Your task to perform on an android device: turn notification dots on Image 0: 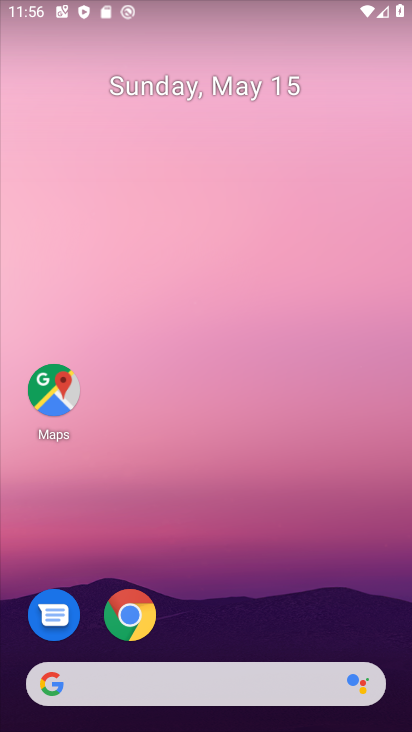
Step 0: drag from (348, 570) to (293, 159)
Your task to perform on an android device: turn notification dots on Image 1: 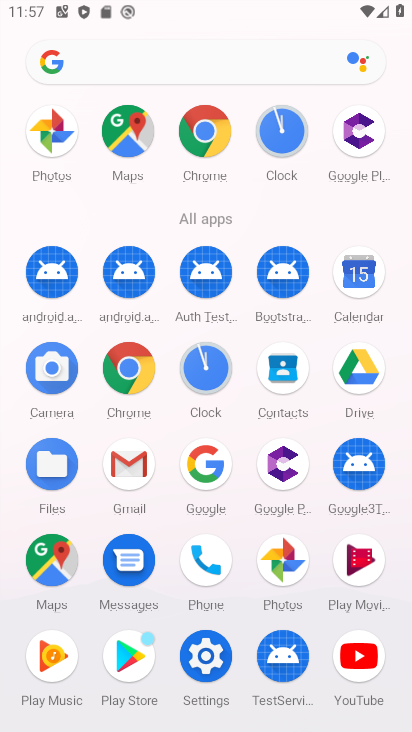
Step 1: click (214, 680)
Your task to perform on an android device: turn notification dots on Image 2: 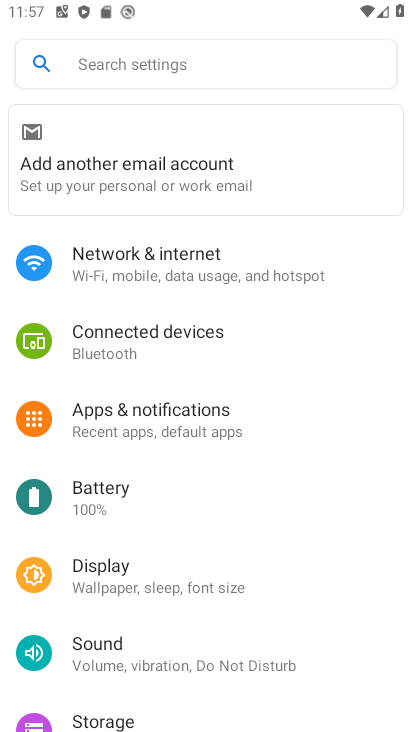
Step 2: click (177, 426)
Your task to perform on an android device: turn notification dots on Image 3: 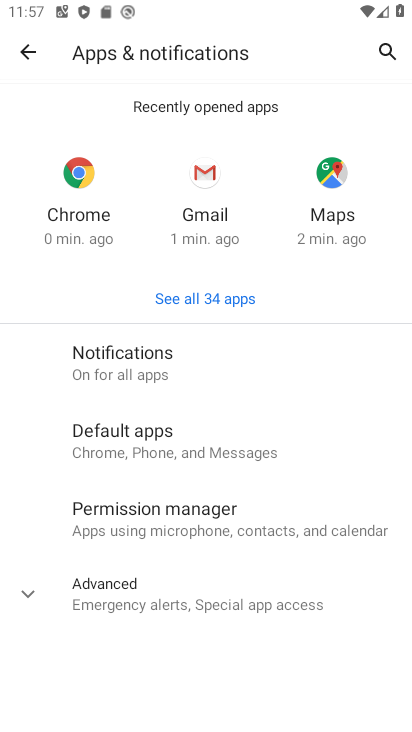
Step 3: click (161, 361)
Your task to perform on an android device: turn notification dots on Image 4: 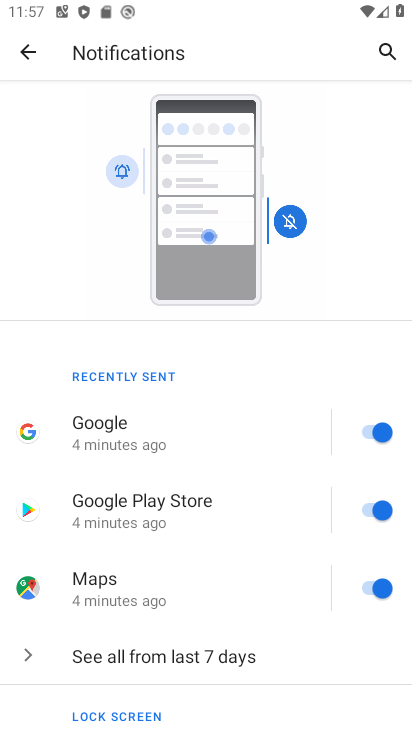
Step 4: drag from (288, 682) to (262, 239)
Your task to perform on an android device: turn notification dots on Image 5: 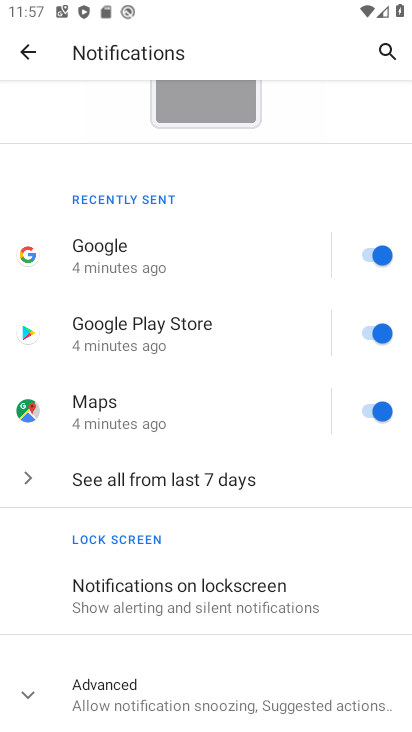
Step 5: click (227, 681)
Your task to perform on an android device: turn notification dots on Image 6: 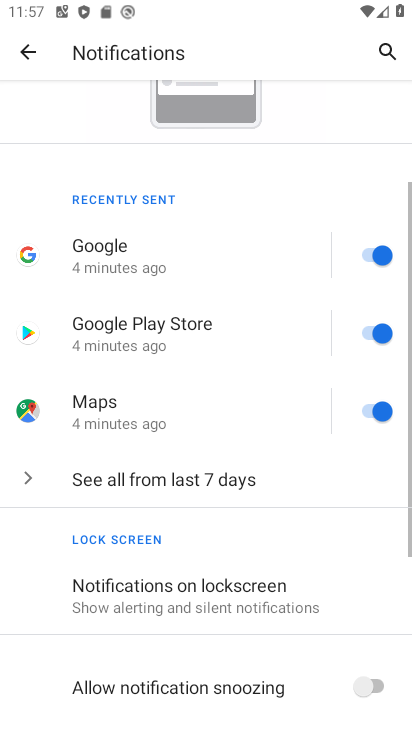
Step 6: task complete